Your task to perform on an android device: see tabs open on other devices in the chrome app Image 0: 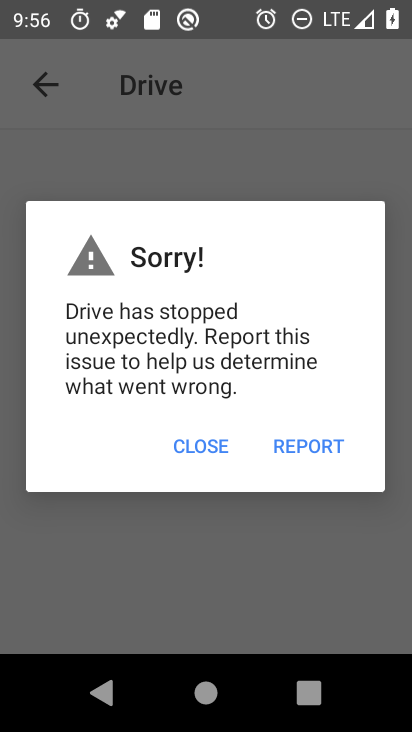
Step 0: drag from (265, 355) to (299, 135)
Your task to perform on an android device: see tabs open on other devices in the chrome app Image 1: 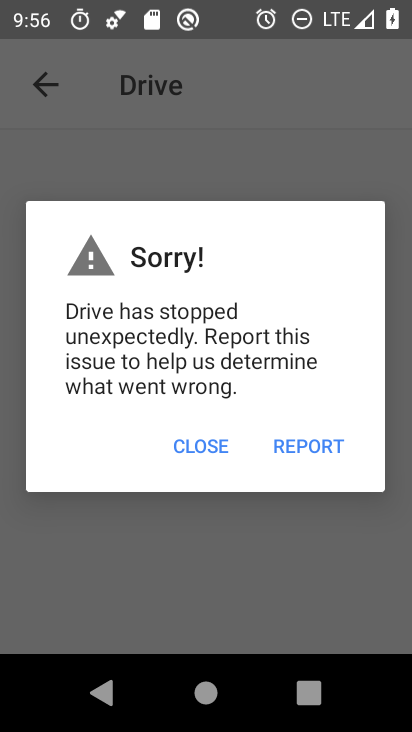
Step 1: drag from (223, 408) to (295, 190)
Your task to perform on an android device: see tabs open on other devices in the chrome app Image 2: 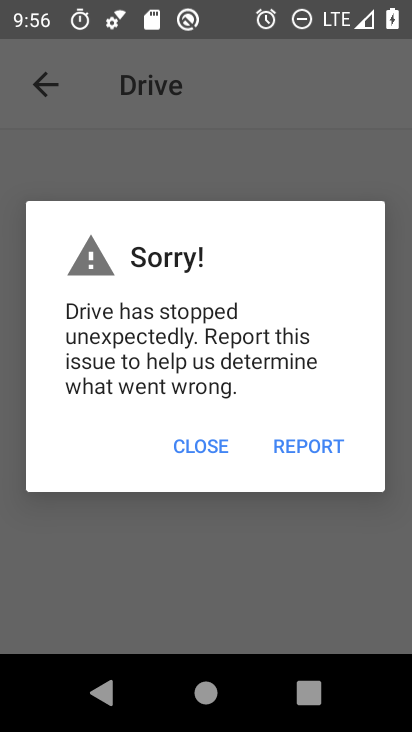
Step 2: drag from (222, 373) to (294, 168)
Your task to perform on an android device: see tabs open on other devices in the chrome app Image 3: 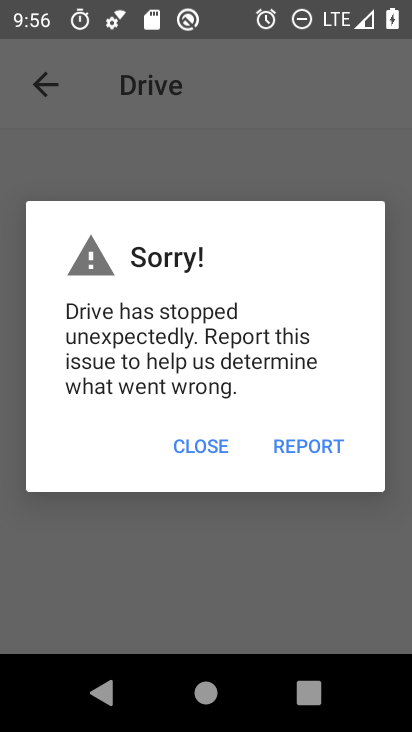
Step 3: press home button
Your task to perform on an android device: see tabs open on other devices in the chrome app Image 4: 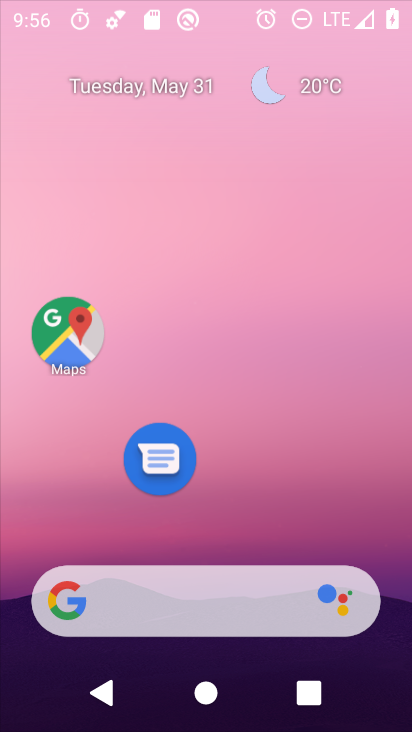
Step 4: drag from (236, 535) to (281, 118)
Your task to perform on an android device: see tabs open on other devices in the chrome app Image 5: 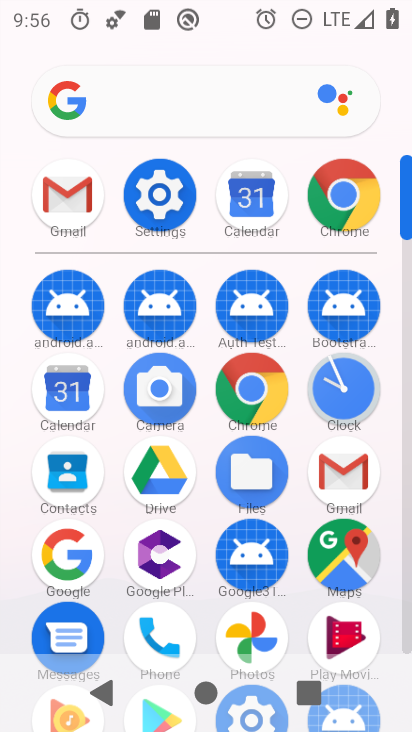
Step 5: click (336, 196)
Your task to perform on an android device: see tabs open on other devices in the chrome app Image 6: 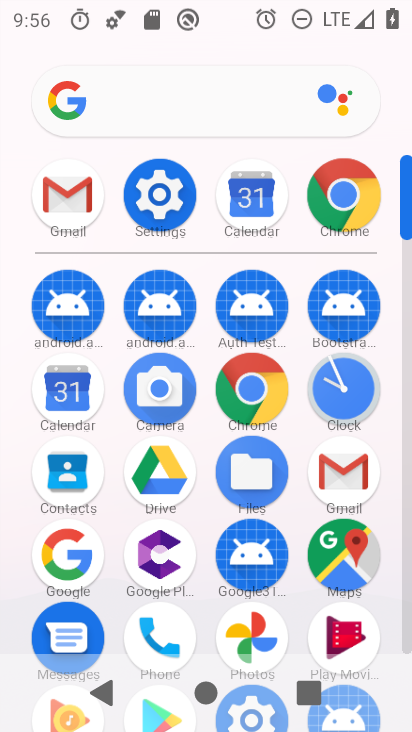
Step 6: click (336, 196)
Your task to perform on an android device: see tabs open on other devices in the chrome app Image 7: 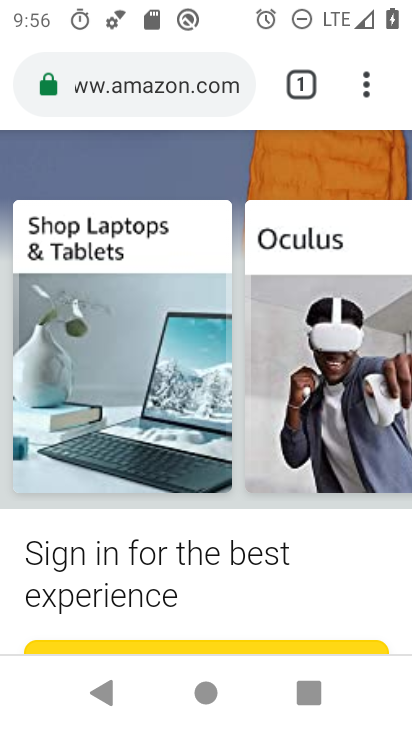
Step 7: drag from (360, 68) to (191, 411)
Your task to perform on an android device: see tabs open on other devices in the chrome app Image 8: 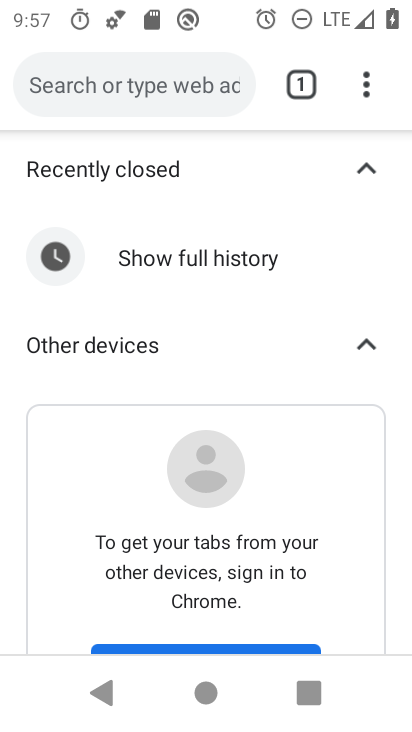
Step 8: click (374, 88)
Your task to perform on an android device: see tabs open on other devices in the chrome app Image 9: 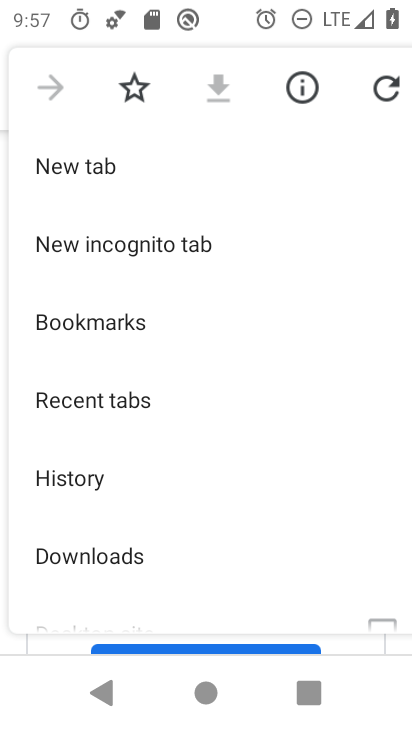
Step 9: drag from (186, 609) to (235, 197)
Your task to perform on an android device: see tabs open on other devices in the chrome app Image 10: 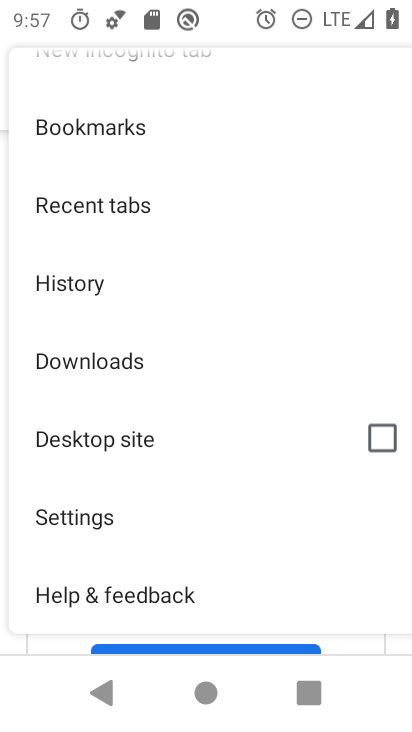
Step 10: click (87, 205)
Your task to perform on an android device: see tabs open on other devices in the chrome app Image 11: 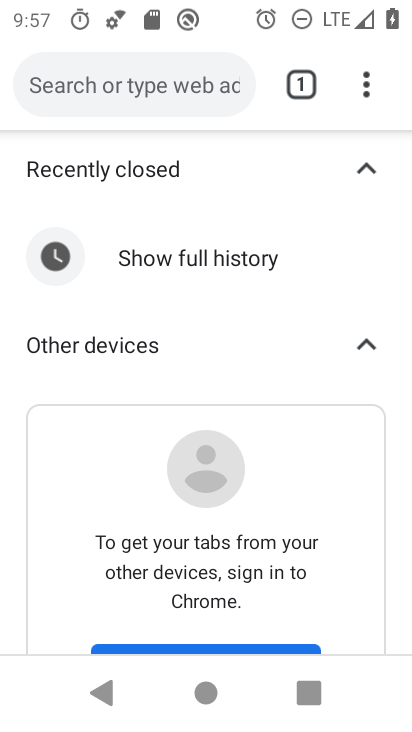
Step 11: task complete